Your task to perform on an android device: Play the last video I watched on Youtube Image 0: 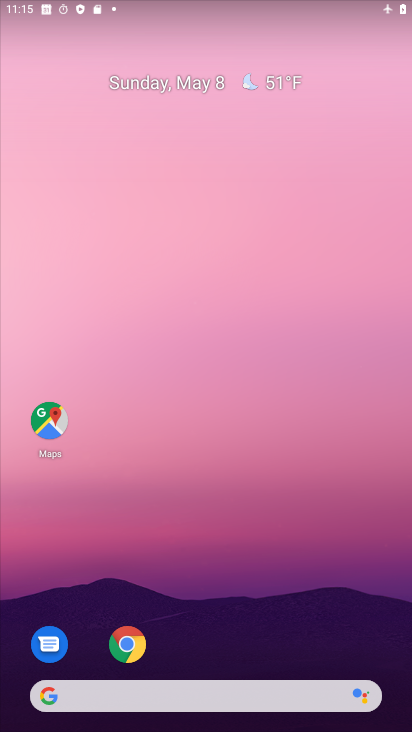
Step 0: drag from (169, 593) to (234, 52)
Your task to perform on an android device: Play the last video I watched on Youtube Image 1: 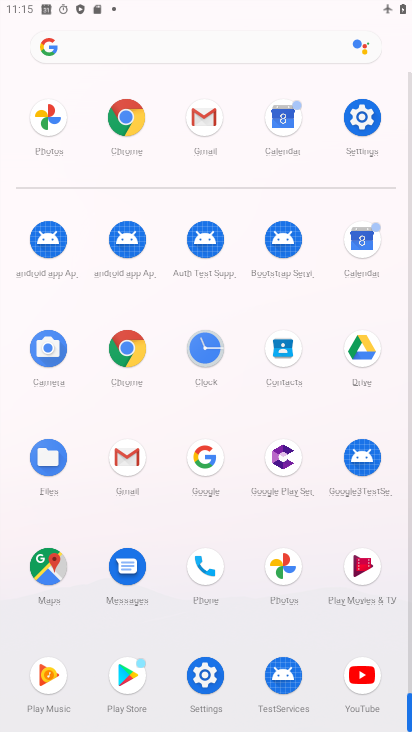
Step 1: click (369, 666)
Your task to perform on an android device: Play the last video I watched on Youtube Image 2: 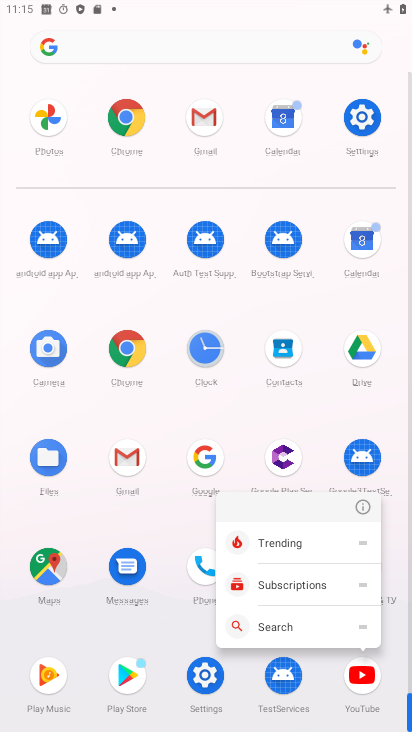
Step 2: click (362, 506)
Your task to perform on an android device: Play the last video I watched on Youtube Image 3: 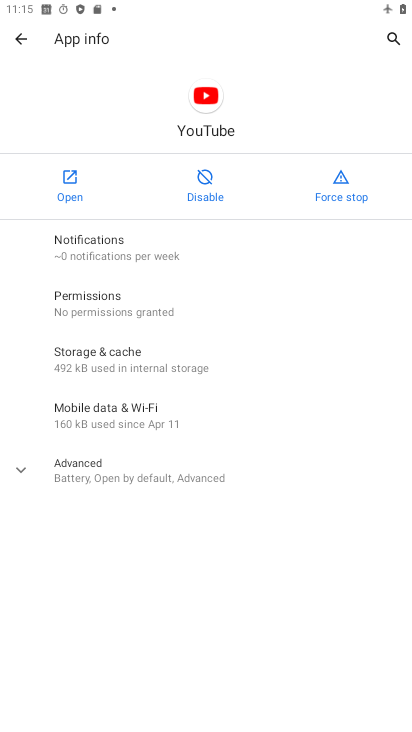
Step 3: click (67, 185)
Your task to perform on an android device: Play the last video I watched on Youtube Image 4: 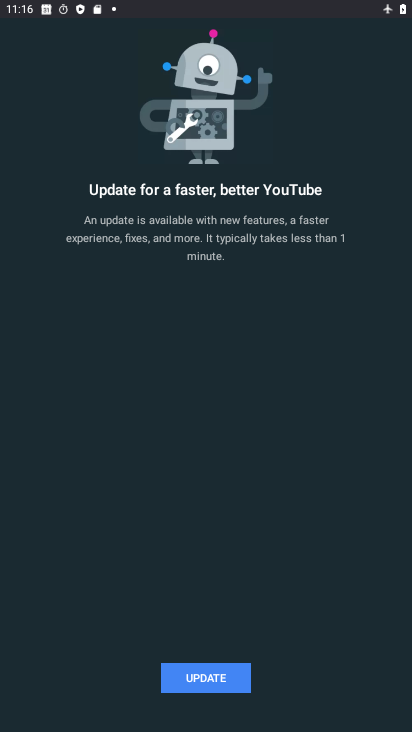
Step 4: task complete